Your task to perform on an android device: delete location history Image 0: 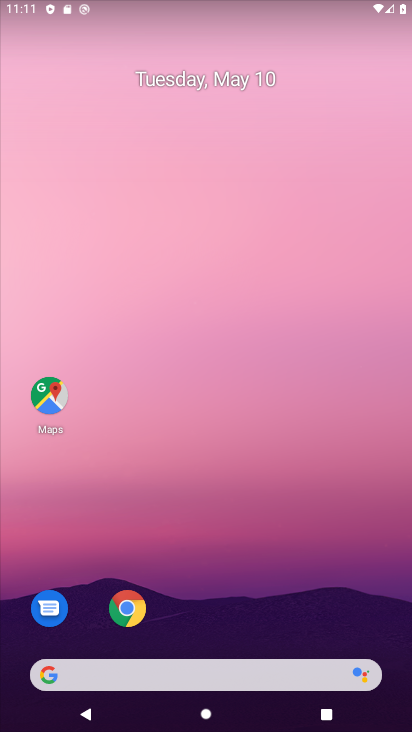
Step 0: drag from (256, 565) to (236, 59)
Your task to perform on an android device: delete location history Image 1: 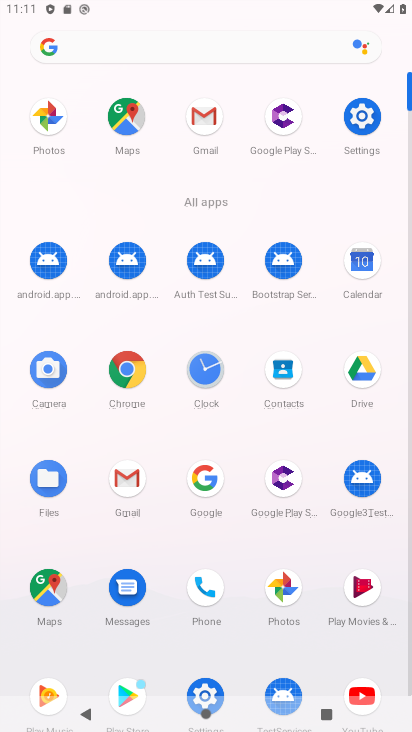
Step 1: click (127, 114)
Your task to perform on an android device: delete location history Image 2: 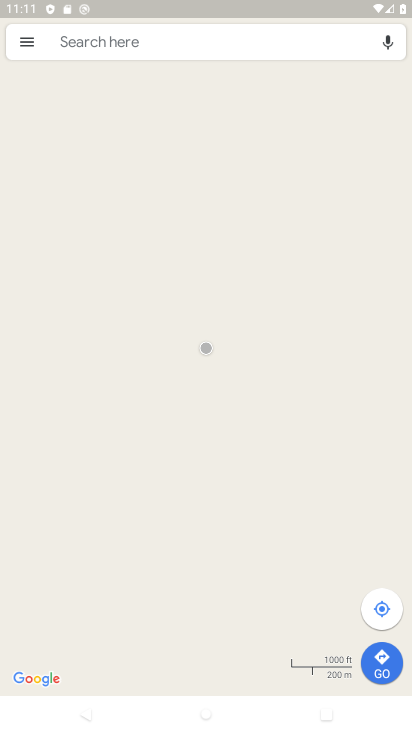
Step 2: click (22, 35)
Your task to perform on an android device: delete location history Image 3: 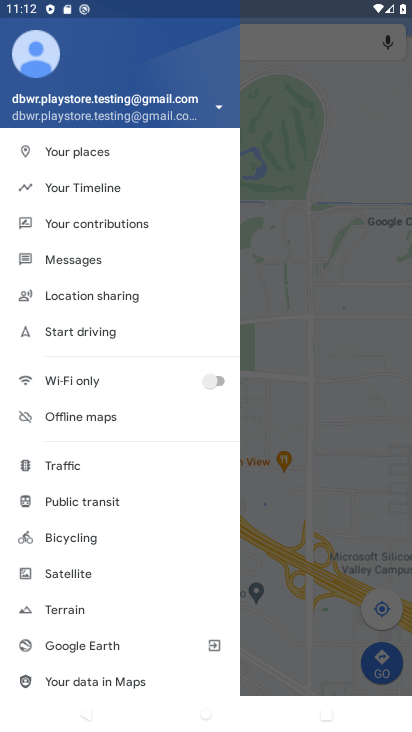
Step 3: click (82, 184)
Your task to perform on an android device: delete location history Image 4: 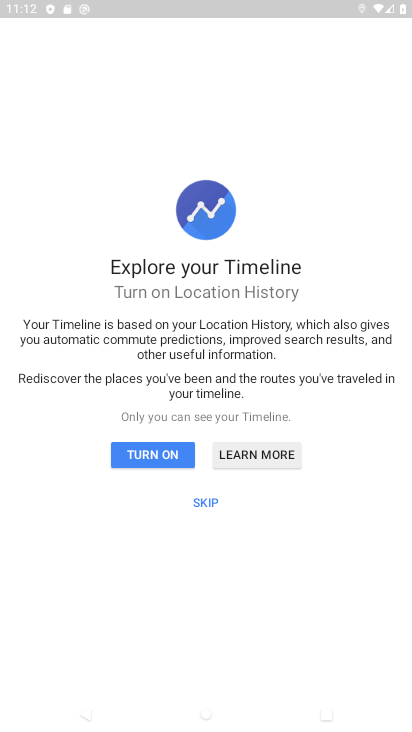
Step 4: click (213, 499)
Your task to perform on an android device: delete location history Image 5: 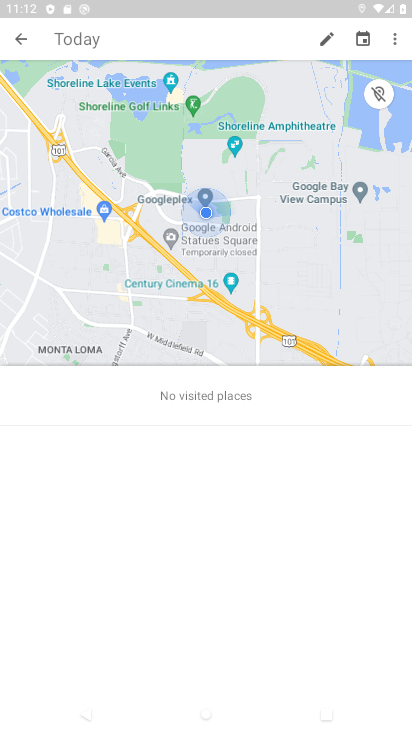
Step 5: click (391, 36)
Your task to perform on an android device: delete location history Image 6: 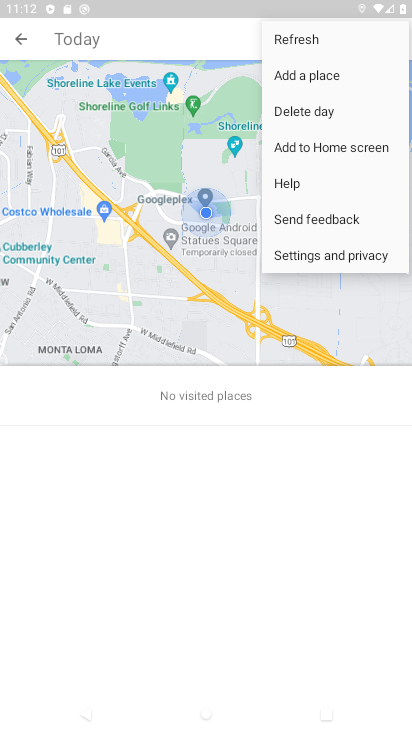
Step 6: click (344, 245)
Your task to perform on an android device: delete location history Image 7: 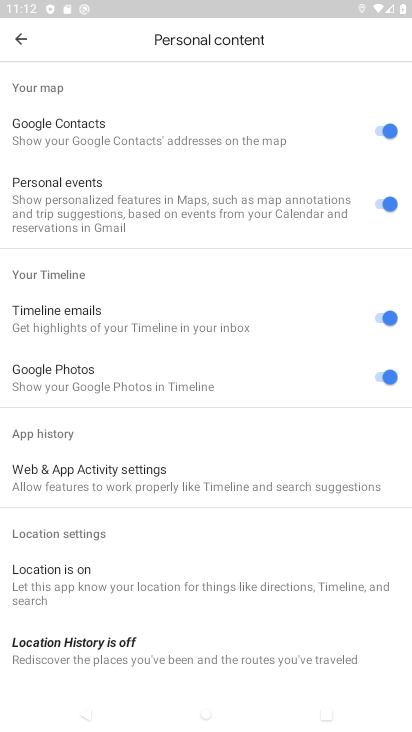
Step 7: drag from (226, 527) to (203, 221)
Your task to perform on an android device: delete location history Image 8: 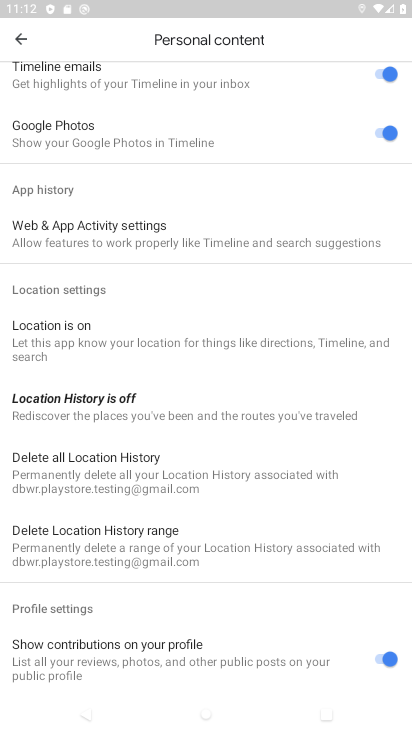
Step 8: click (144, 460)
Your task to perform on an android device: delete location history Image 9: 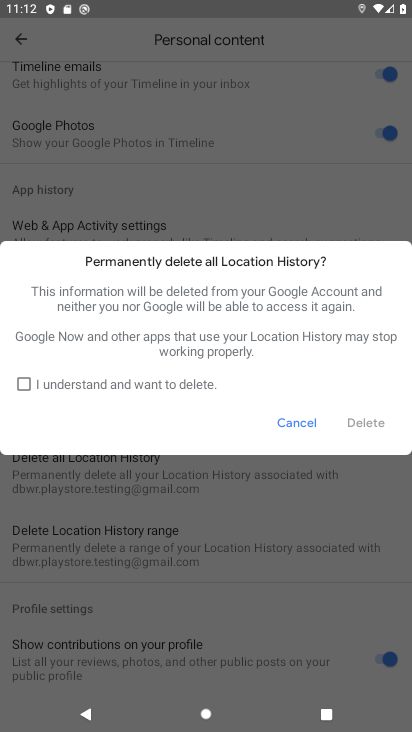
Step 9: click (18, 379)
Your task to perform on an android device: delete location history Image 10: 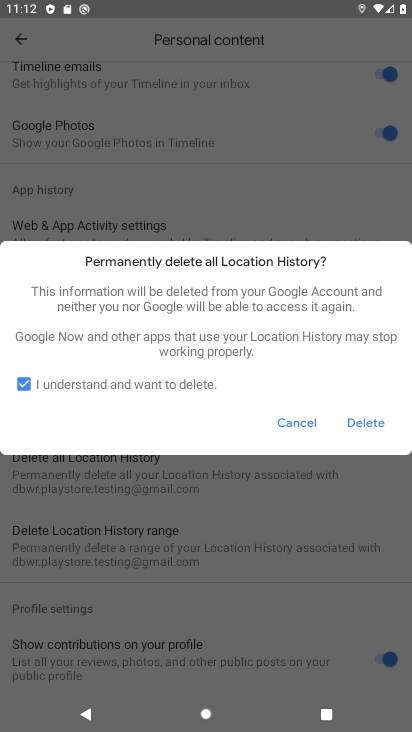
Step 10: click (370, 416)
Your task to perform on an android device: delete location history Image 11: 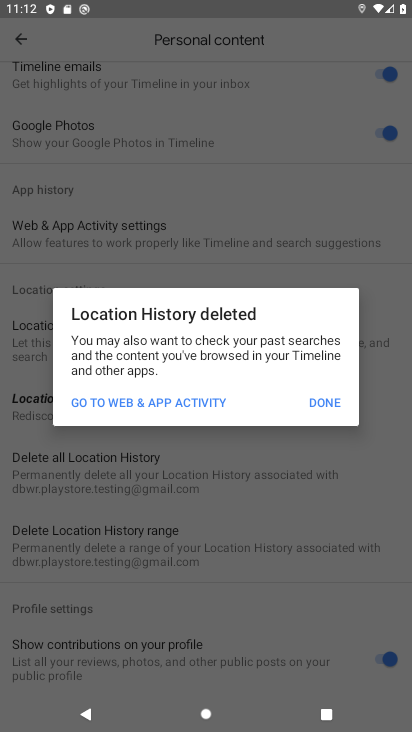
Step 11: click (333, 398)
Your task to perform on an android device: delete location history Image 12: 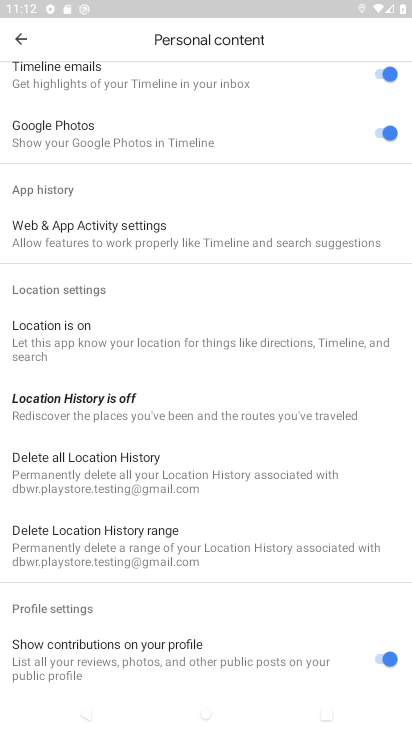
Step 12: task complete